Your task to perform on an android device: turn smart compose on in the gmail app Image 0: 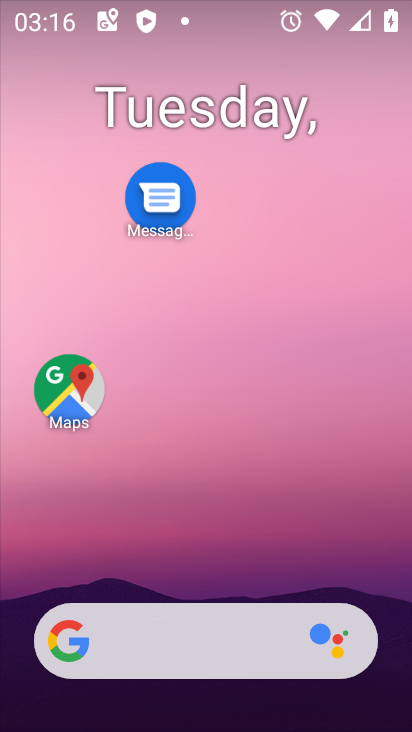
Step 0: drag from (189, 584) to (241, 211)
Your task to perform on an android device: turn smart compose on in the gmail app Image 1: 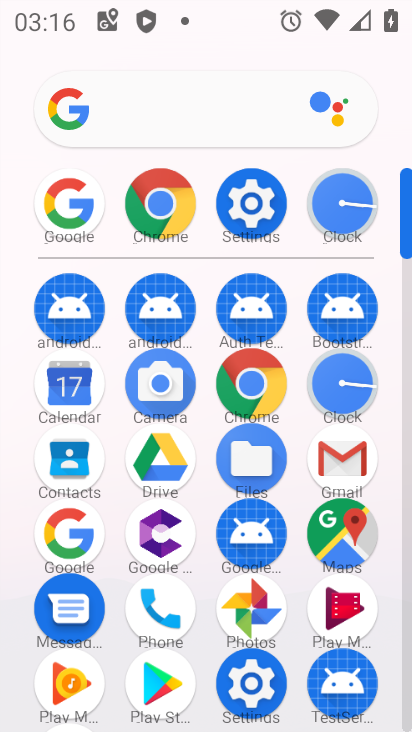
Step 1: click (336, 464)
Your task to perform on an android device: turn smart compose on in the gmail app Image 2: 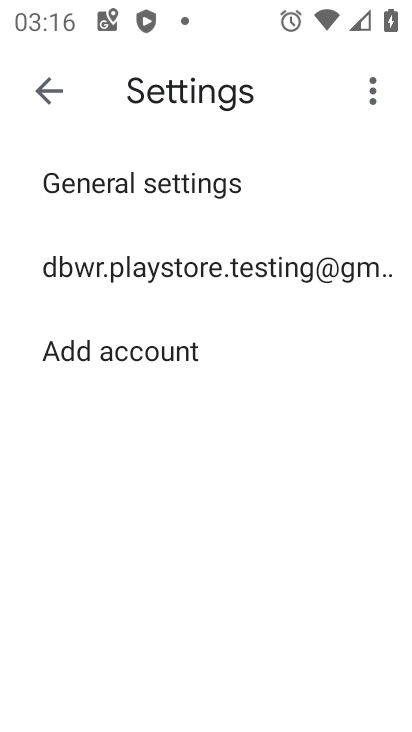
Step 2: click (42, 87)
Your task to perform on an android device: turn smart compose on in the gmail app Image 3: 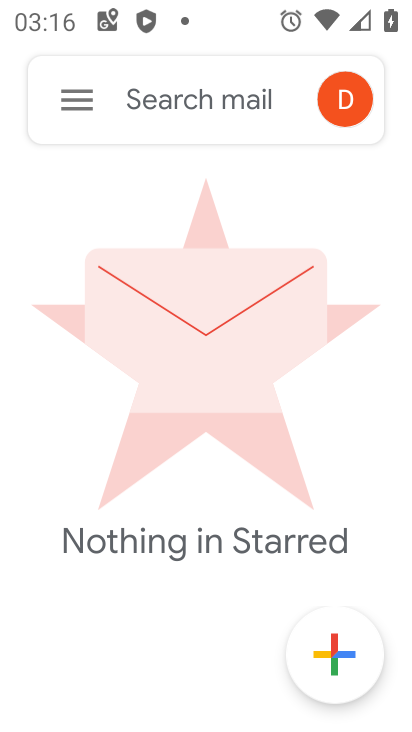
Step 3: click (75, 98)
Your task to perform on an android device: turn smart compose on in the gmail app Image 4: 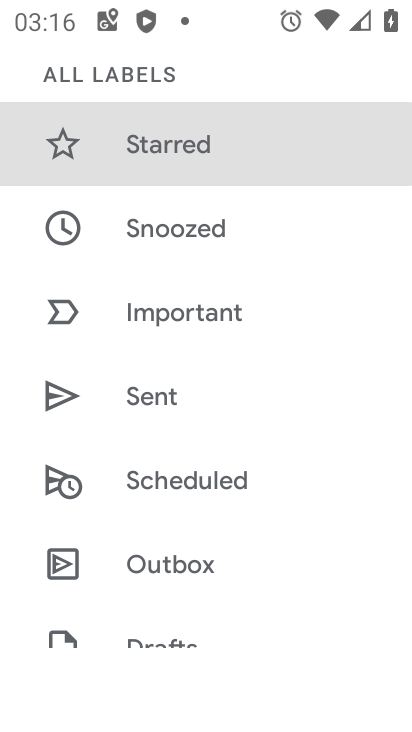
Step 4: drag from (177, 621) to (222, 261)
Your task to perform on an android device: turn smart compose on in the gmail app Image 5: 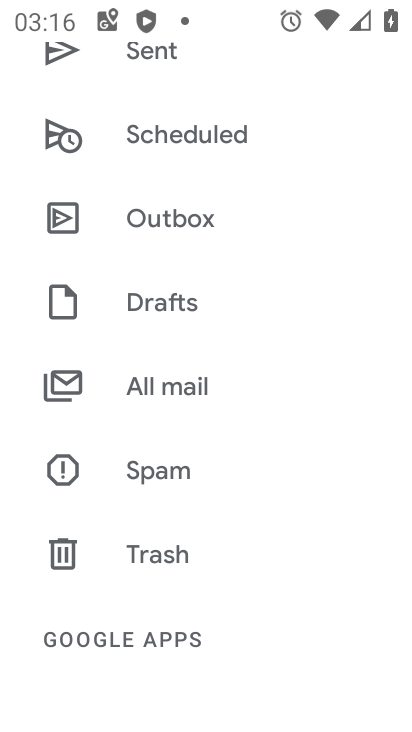
Step 5: drag from (240, 514) to (241, 253)
Your task to perform on an android device: turn smart compose on in the gmail app Image 6: 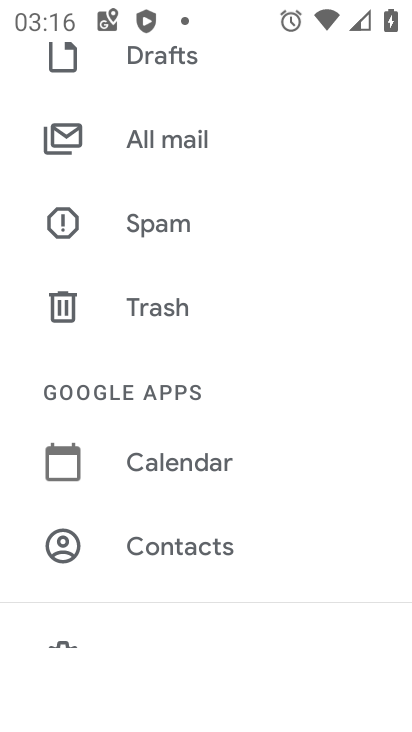
Step 6: drag from (231, 566) to (239, 313)
Your task to perform on an android device: turn smart compose on in the gmail app Image 7: 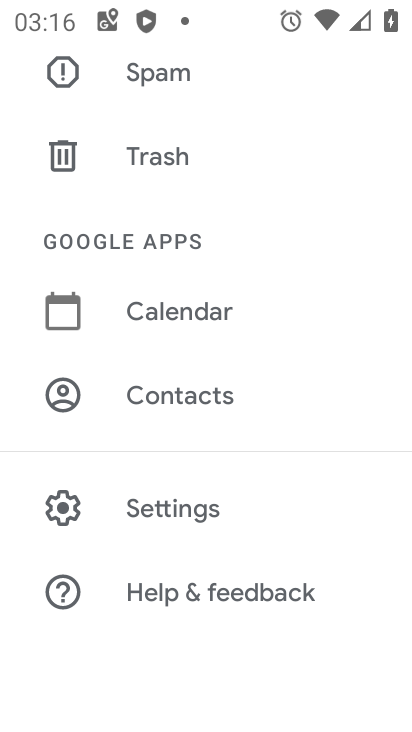
Step 7: click (190, 510)
Your task to perform on an android device: turn smart compose on in the gmail app Image 8: 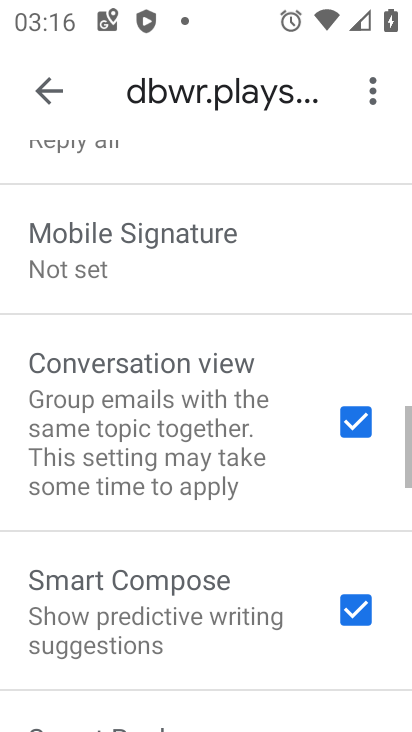
Step 8: task complete